Your task to perform on an android device: Open Youtube and go to "Your channel" Image 0: 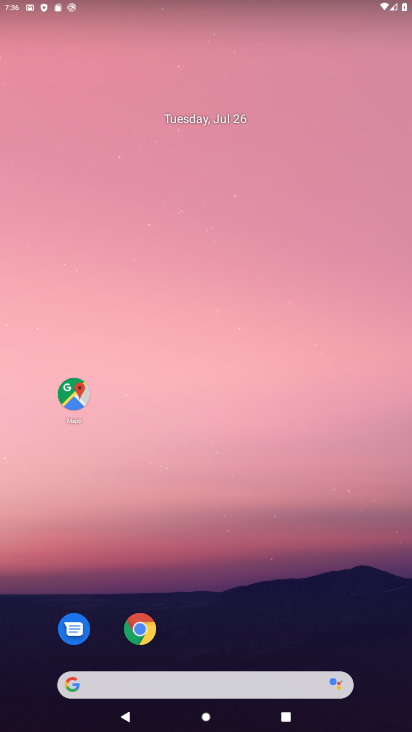
Step 0: drag from (209, 656) to (240, 40)
Your task to perform on an android device: Open Youtube and go to "Your channel" Image 1: 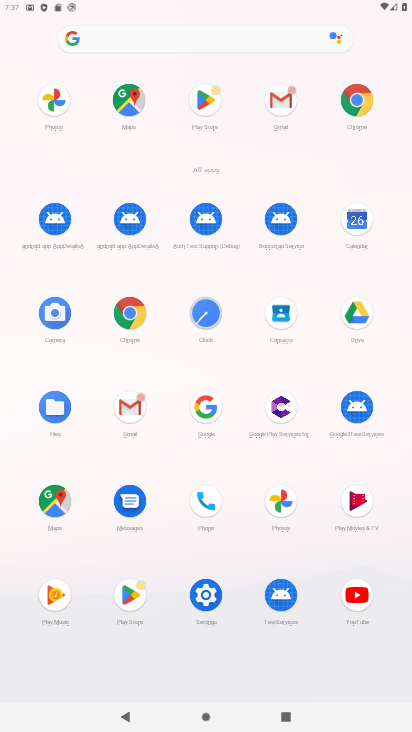
Step 1: click (356, 591)
Your task to perform on an android device: Open Youtube and go to "Your channel" Image 2: 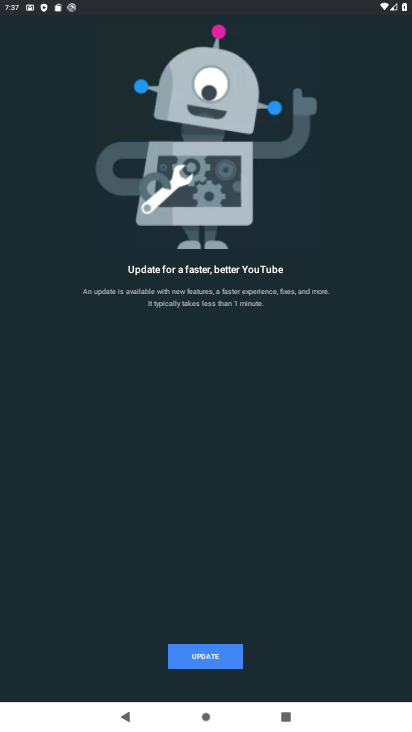
Step 2: click (203, 658)
Your task to perform on an android device: Open Youtube and go to "Your channel" Image 3: 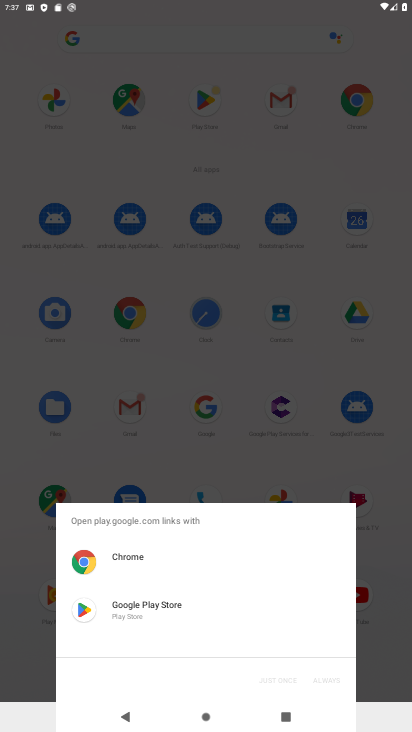
Step 3: click (147, 616)
Your task to perform on an android device: Open Youtube and go to "Your channel" Image 4: 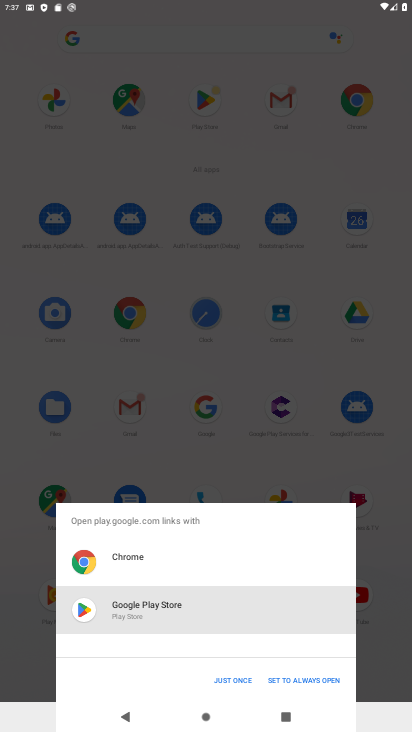
Step 4: click (229, 678)
Your task to perform on an android device: Open Youtube and go to "Your channel" Image 5: 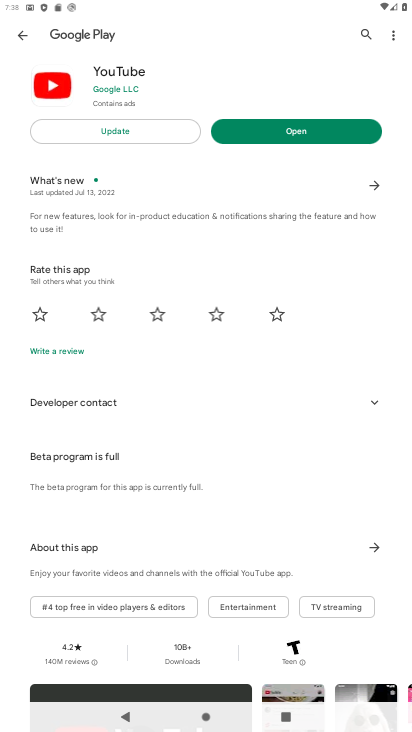
Step 5: click (324, 124)
Your task to perform on an android device: Open Youtube and go to "Your channel" Image 6: 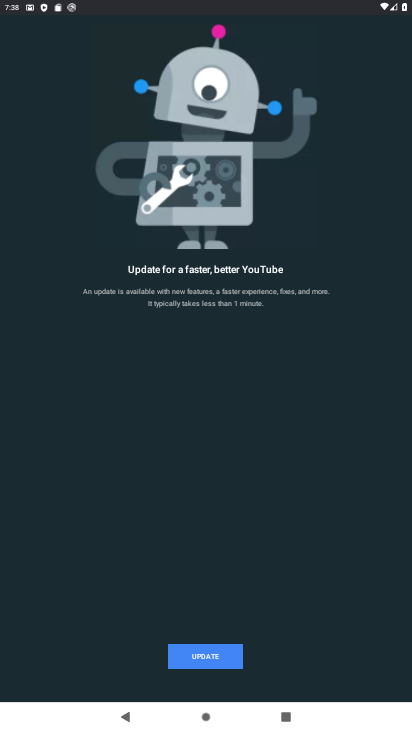
Step 6: click (210, 655)
Your task to perform on an android device: Open Youtube and go to "Your channel" Image 7: 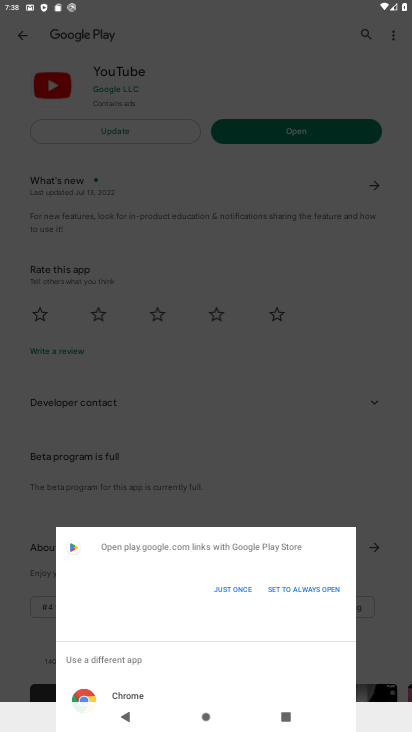
Step 7: click (217, 590)
Your task to perform on an android device: Open Youtube and go to "Your channel" Image 8: 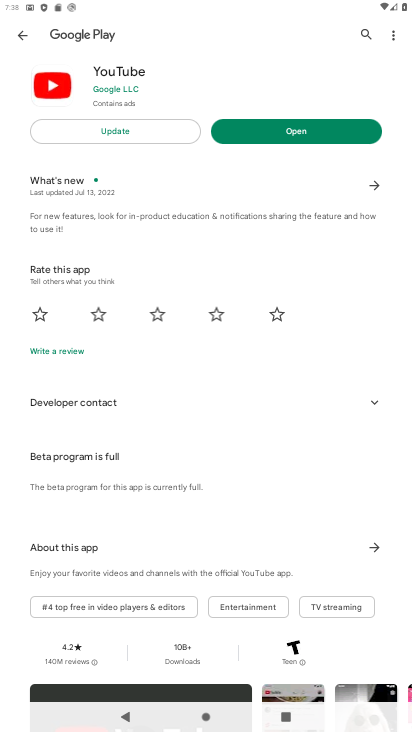
Step 8: click (110, 139)
Your task to perform on an android device: Open Youtube and go to "Your channel" Image 9: 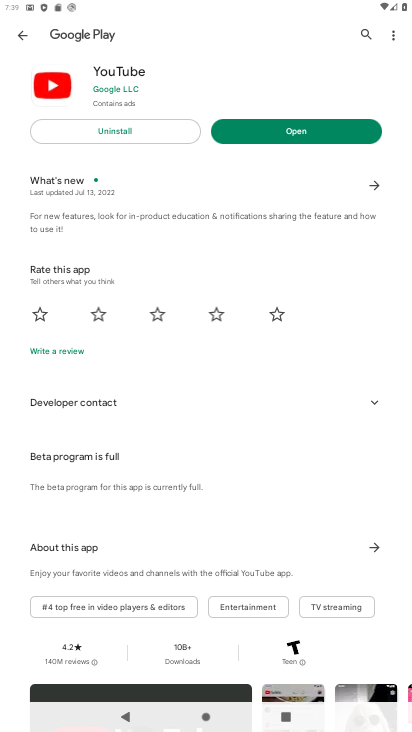
Step 9: click (297, 127)
Your task to perform on an android device: Open Youtube and go to "Your channel" Image 10: 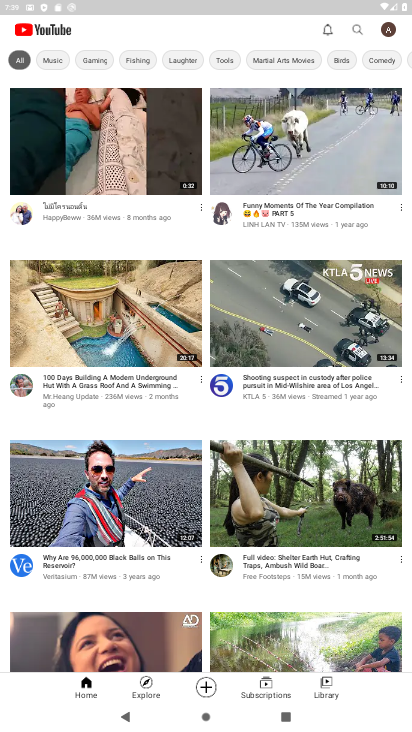
Step 10: click (386, 27)
Your task to perform on an android device: Open Youtube and go to "Your channel" Image 11: 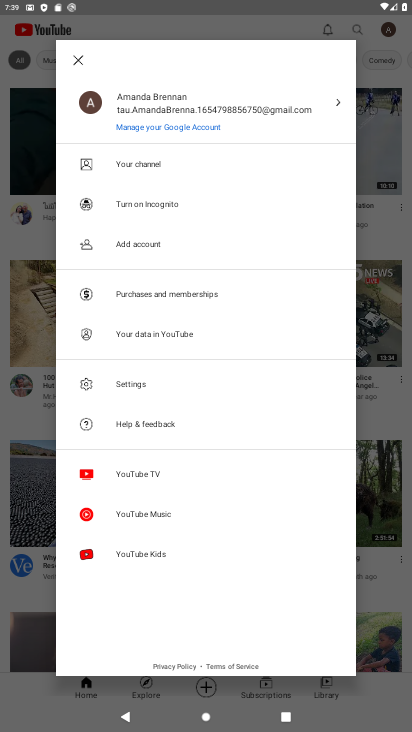
Step 11: click (171, 160)
Your task to perform on an android device: Open Youtube and go to "Your channel" Image 12: 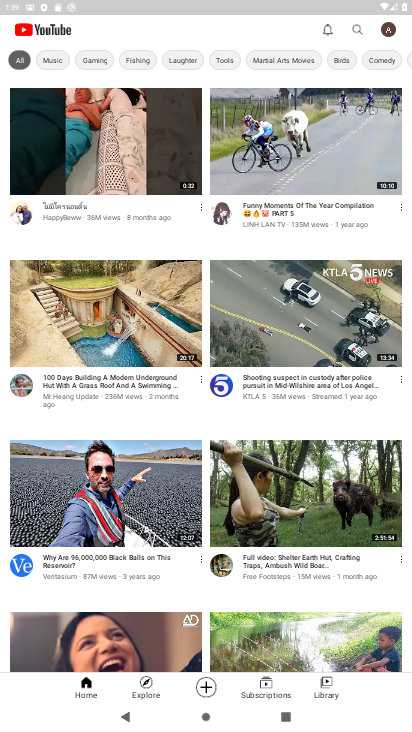
Step 12: task complete